Your task to perform on an android device: Open Chrome and go to settings Image 0: 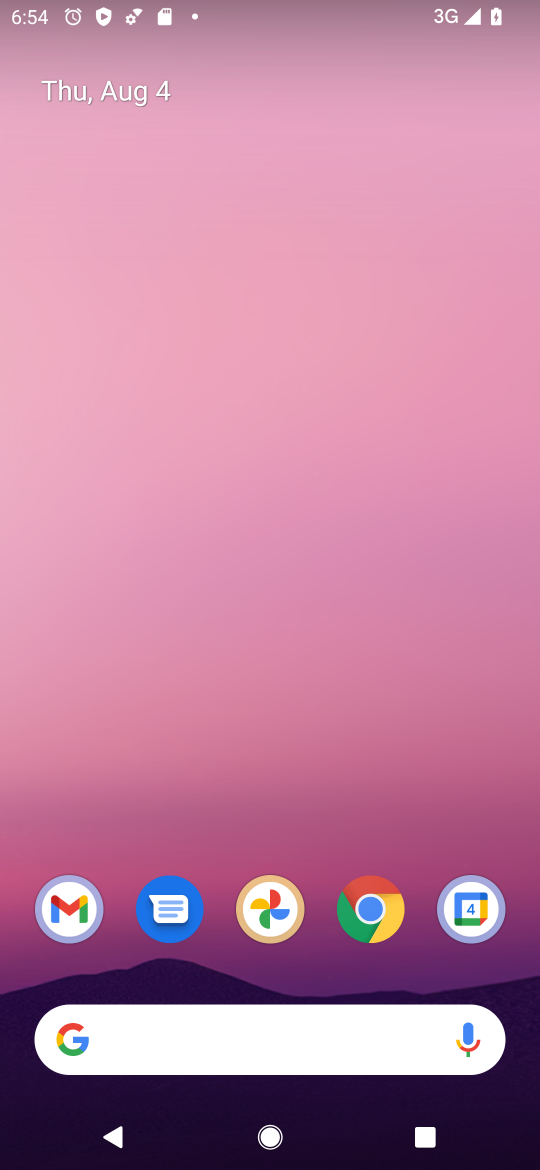
Step 0: drag from (121, 825) to (131, 199)
Your task to perform on an android device: Open Chrome and go to settings Image 1: 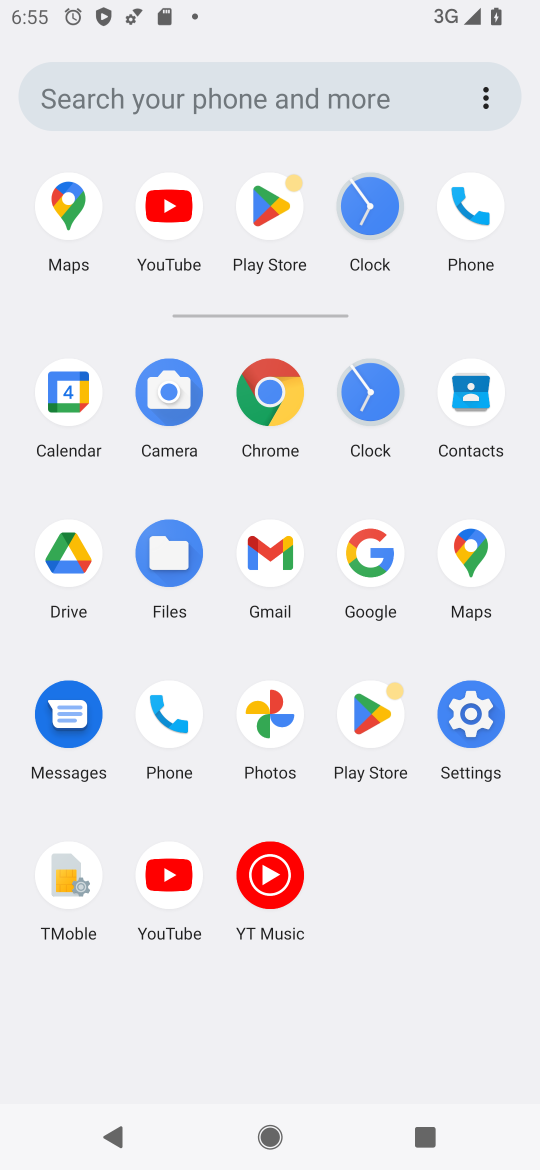
Step 1: click (281, 437)
Your task to perform on an android device: Open Chrome and go to settings Image 2: 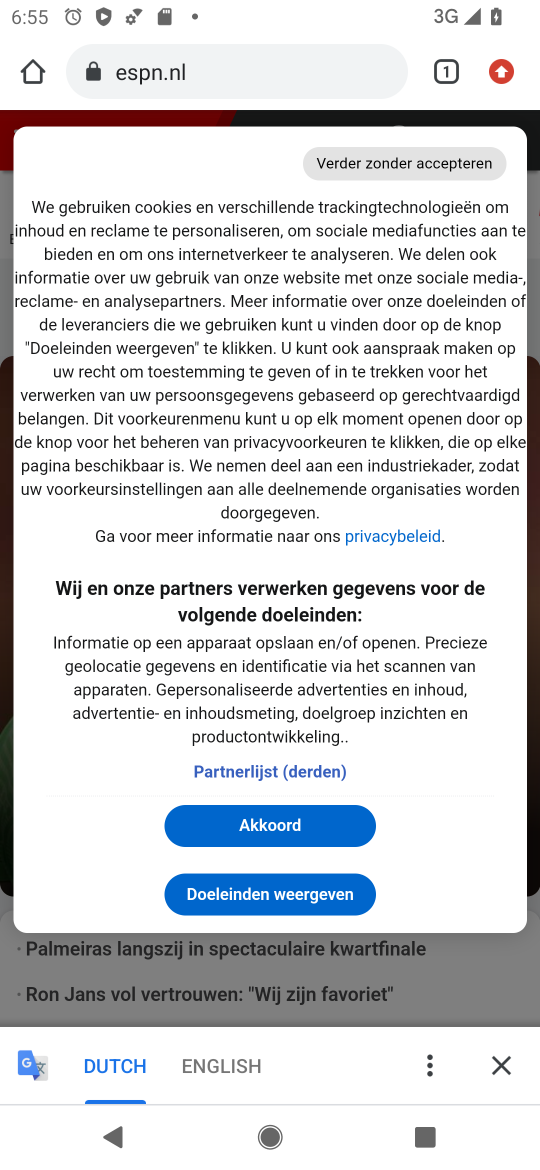
Step 2: task complete